Your task to perform on an android device: Go to network settings Image 0: 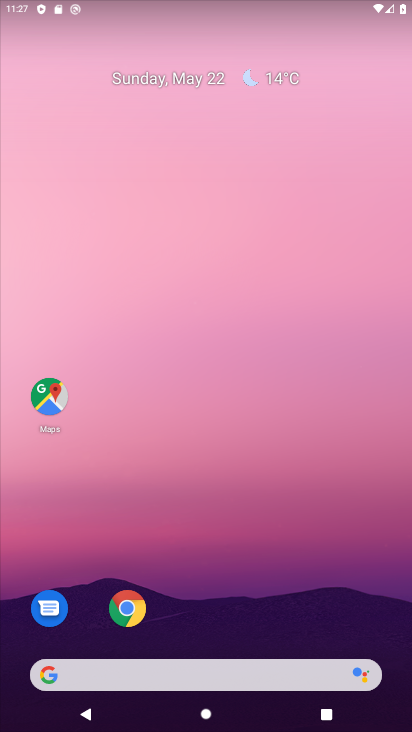
Step 0: drag from (240, 605) to (237, 100)
Your task to perform on an android device: Go to network settings Image 1: 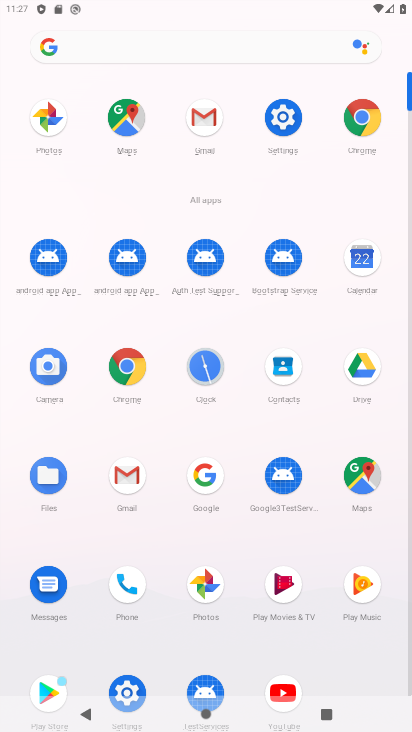
Step 1: click (271, 131)
Your task to perform on an android device: Go to network settings Image 2: 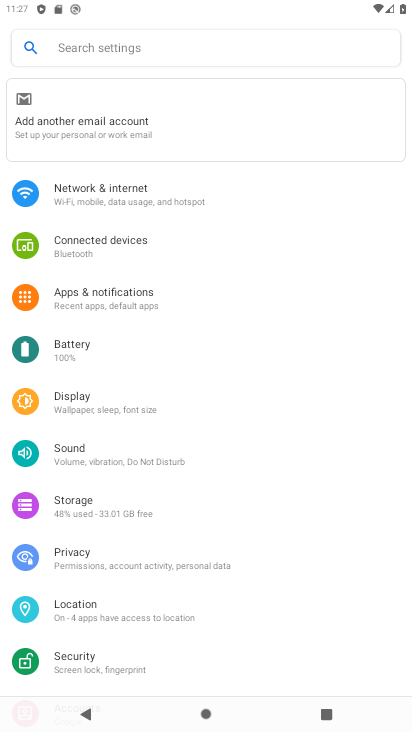
Step 2: click (278, 196)
Your task to perform on an android device: Go to network settings Image 3: 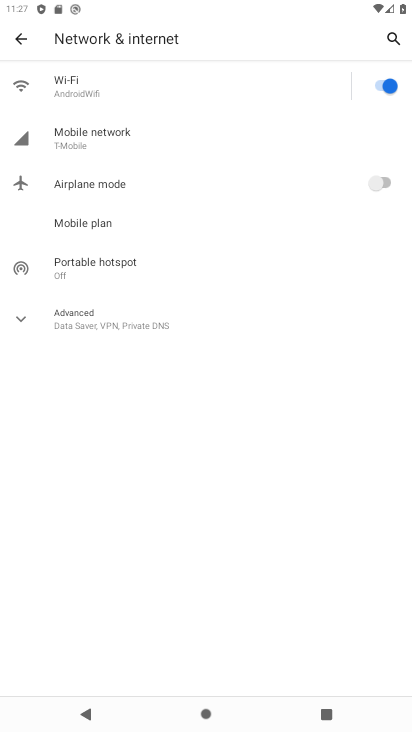
Step 3: task complete